Your task to perform on an android device: Open the Play Movies app and select the watchlist tab. Image 0: 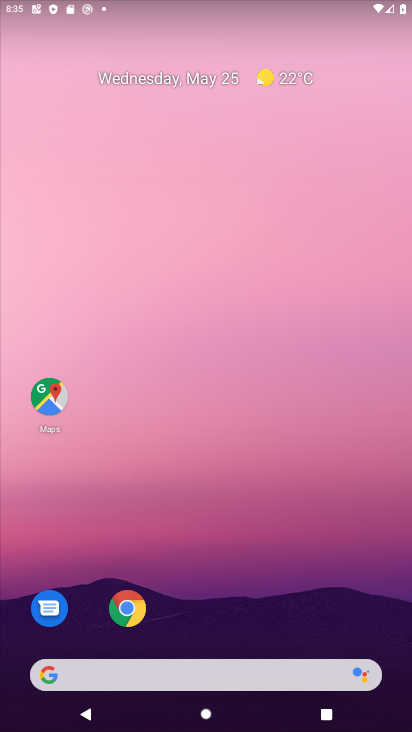
Step 0: drag from (230, 618) to (328, 161)
Your task to perform on an android device: Open the Play Movies app and select the watchlist tab. Image 1: 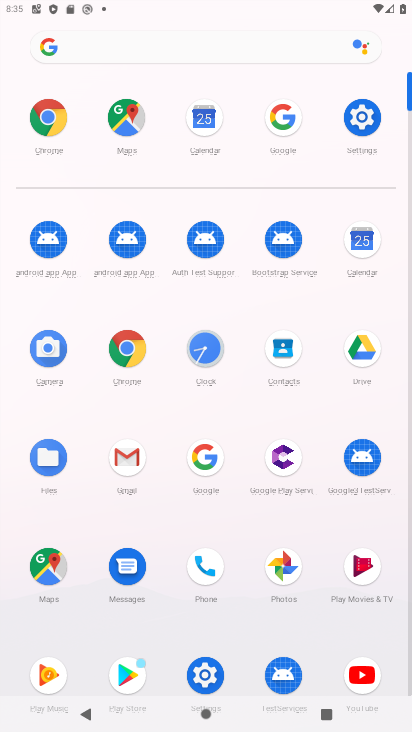
Step 1: drag from (229, 528) to (243, 373)
Your task to perform on an android device: Open the Play Movies app and select the watchlist tab. Image 2: 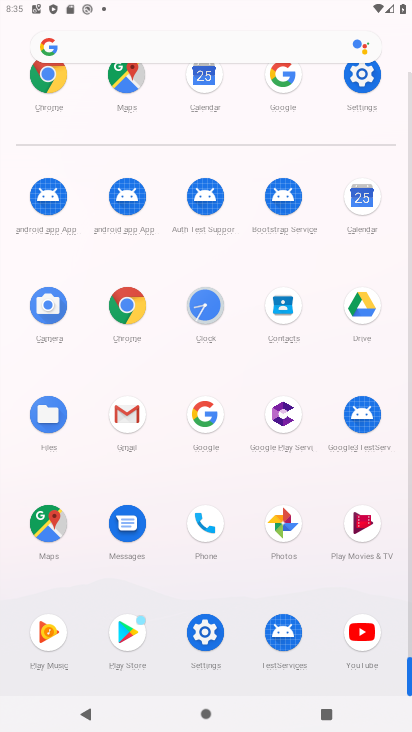
Step 2: click (364, 522)
Your task to perform on an android device: Open the Play Movies app and select the watchlist tab. Image 3: 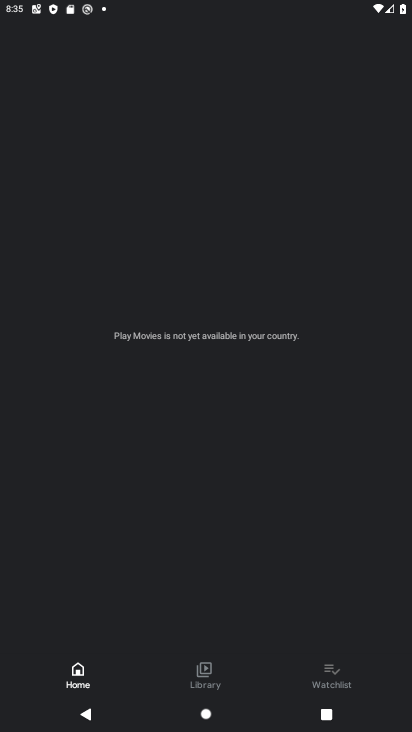
Step 3: click (332, 669)
Your task to perform on an android device: Open the Play Movies app and select the watchlist tab. Image 4: 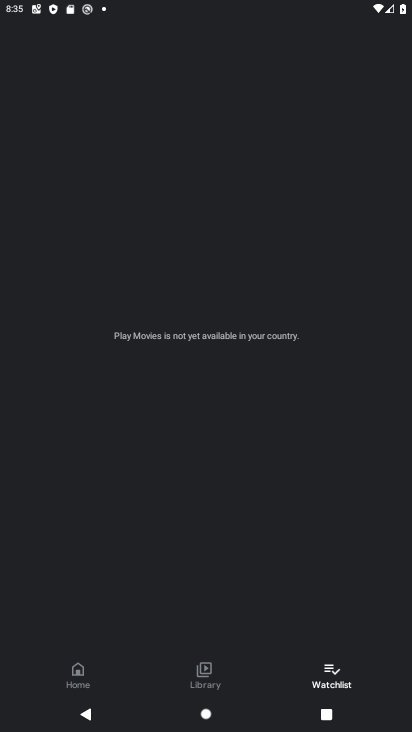
Step 4: task complete